Your task to perform on an android device: Open Google Chrome Image 0: 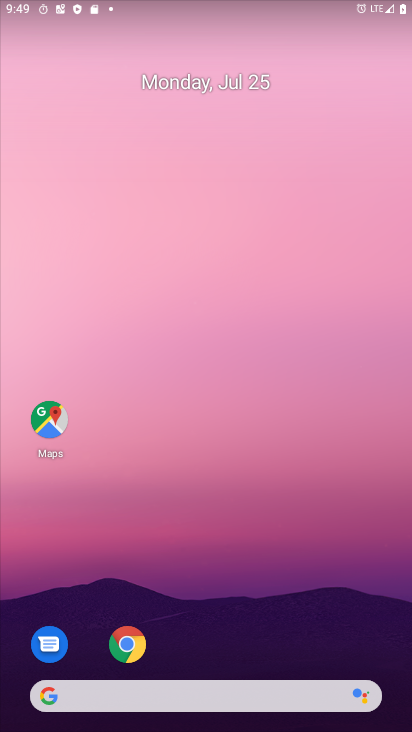
Step 0: drag from (209, 560) to (241, 127)
Your task to perform on an android device: Open Google Chrome Image 1: 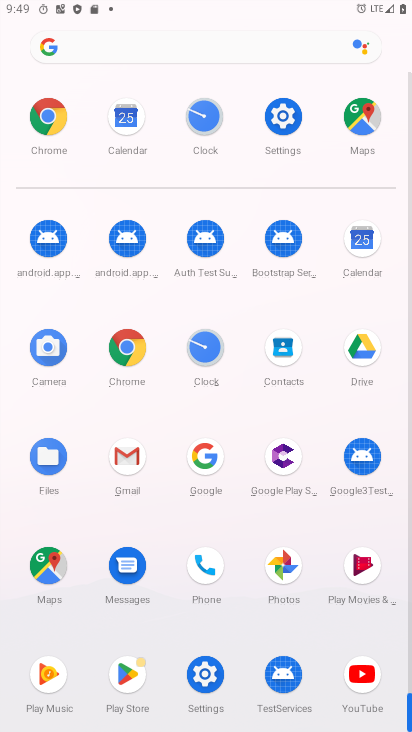
Step 1: click (130, 358)
Your task to perform on an android device: Open Google Chrome Image 2: 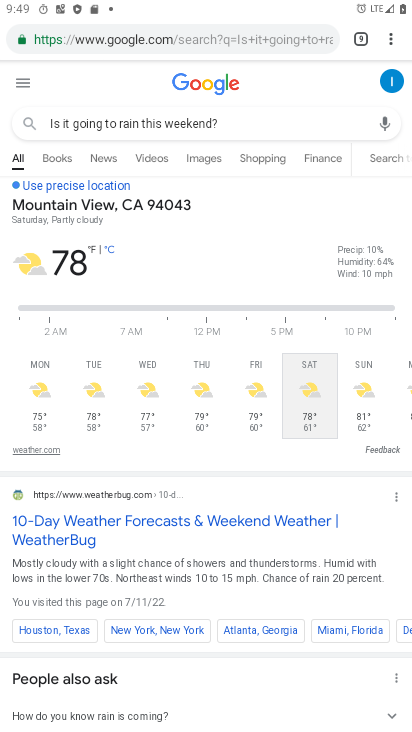
Step 2: task complete